Your task to perform on an android device: turn notification dots off Image 0: 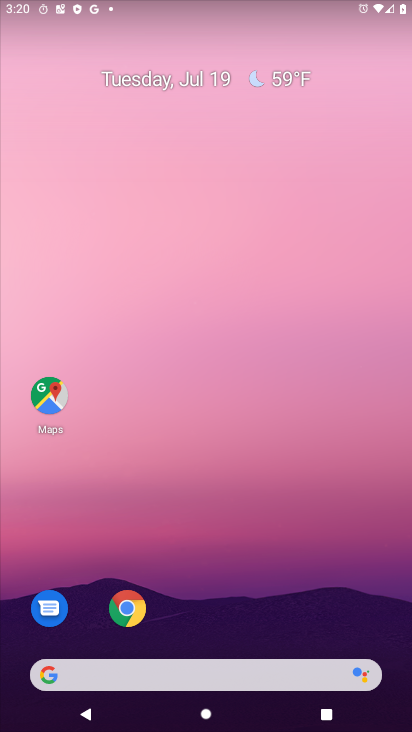
Step 0: drag from (265, 640) to (259, 7)
Your task to perform on an android device: turn notification dots off Image 1: 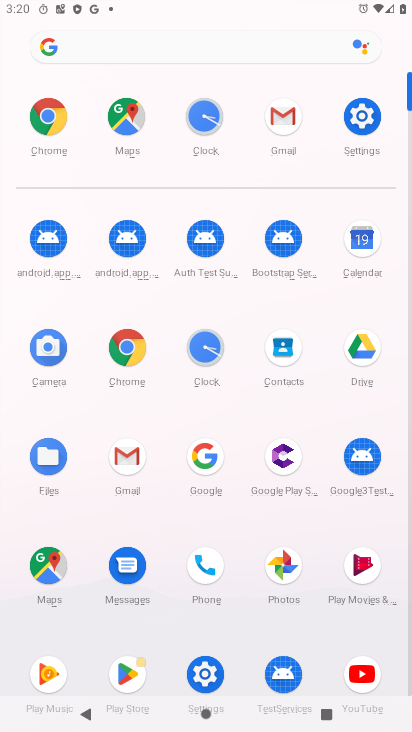
Step 1: click (368, 108)
Your task to perform on an android device: turn notification dots off Image 2: 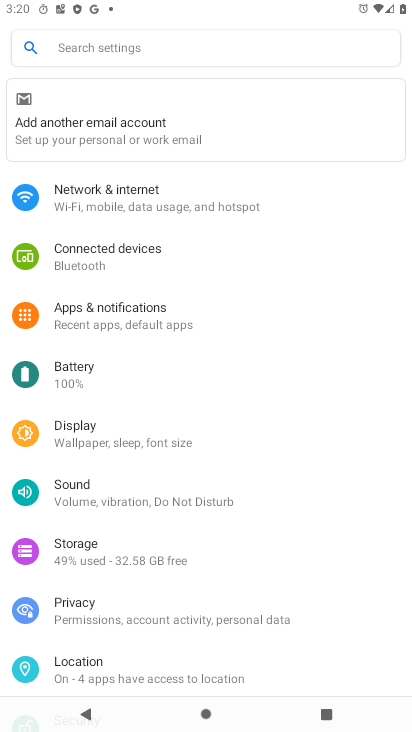
Step 2: click (258, 309)
Your task to perform on an android device: turn notification dots off Image 3: 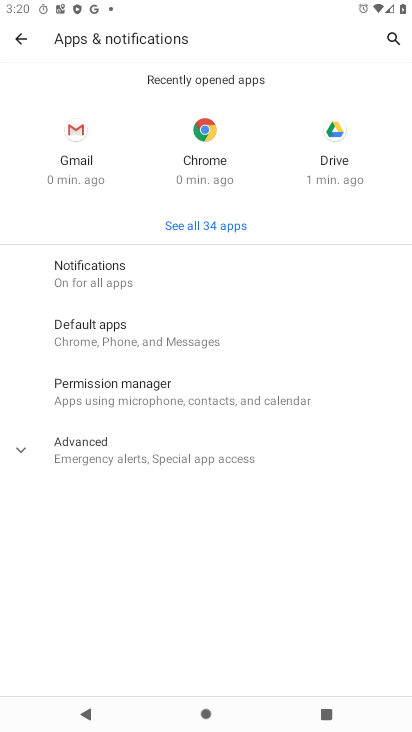
Step 3: click (220, 276)
Your task to perform on an android device: turn notification dots off Image 4: 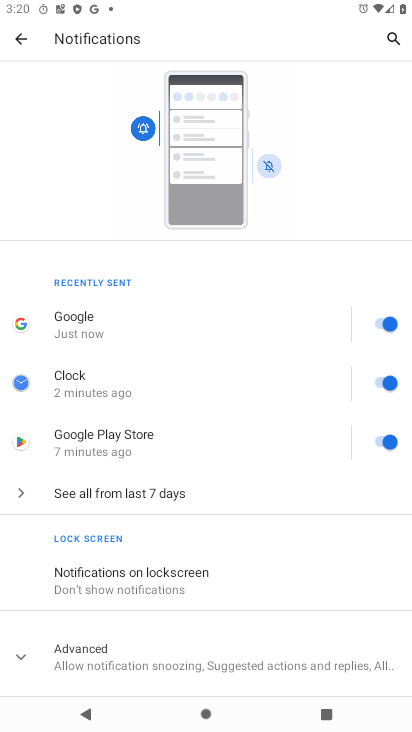
Step 4: click (334, 653)
Your task to perform on an android device: turn notification dots off Image 5: 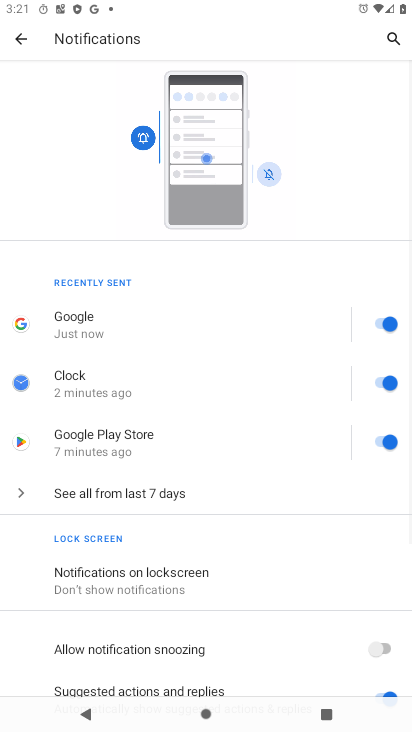
Step 5: drag from (307, 641) to (283, 299)
Your task to perform on an android device: turn notification dots off Image 6: 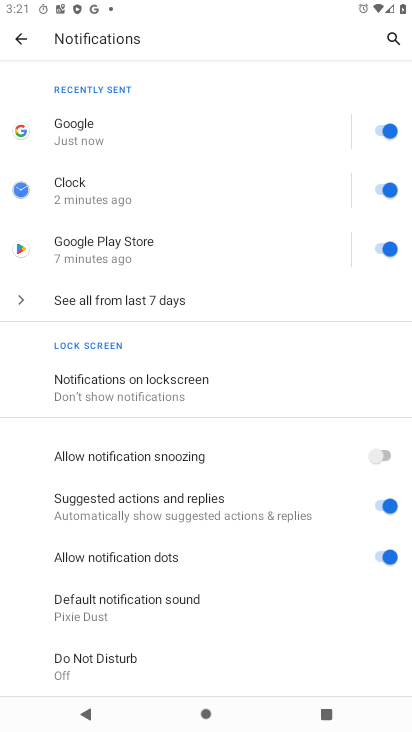
Step 6: click (388, 554)
Your task to perform on an android device: turn notification dots off Image 7: 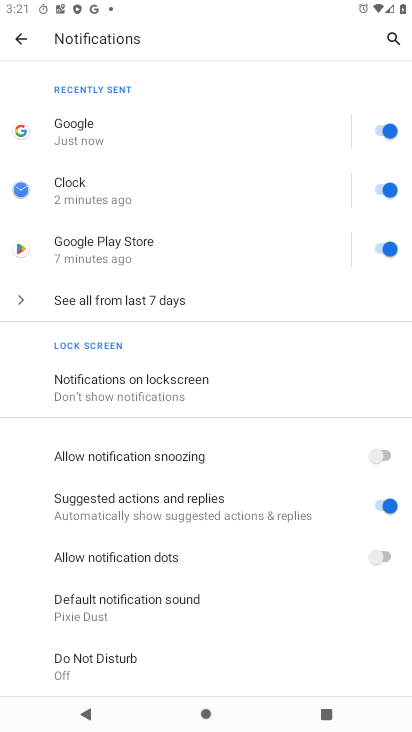
Step 7: task complete